Your task to perform on an android device: Go to CNN.com Image 0: 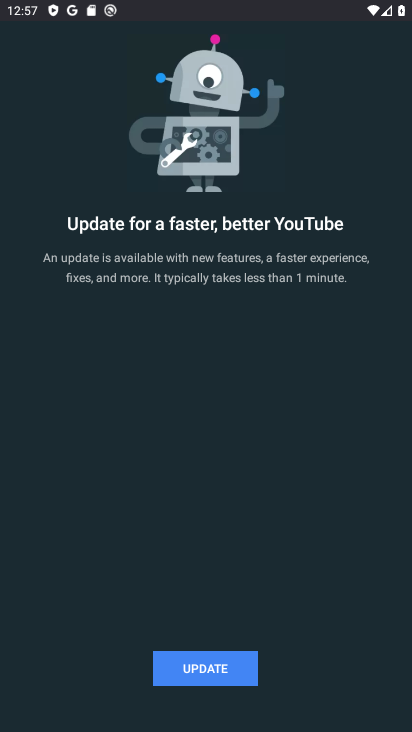
Step 0: press home button
Your task to perform on an android device: Go to CNN.com Image 1: 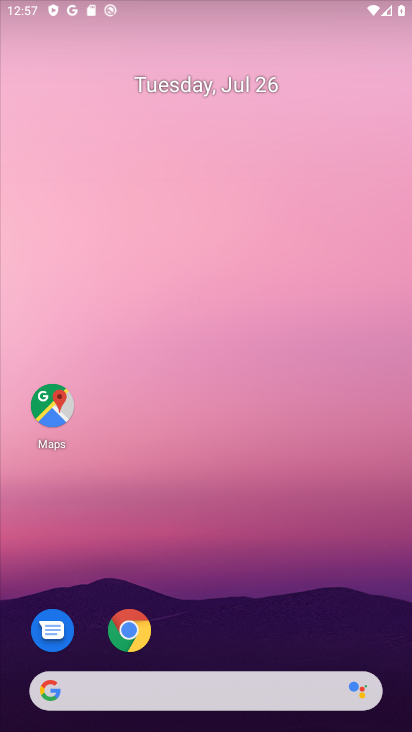
Step 1: drag from (397, 311) to (103, 459)
Your task to perform on an android device: Go to CNN.com Image 2: 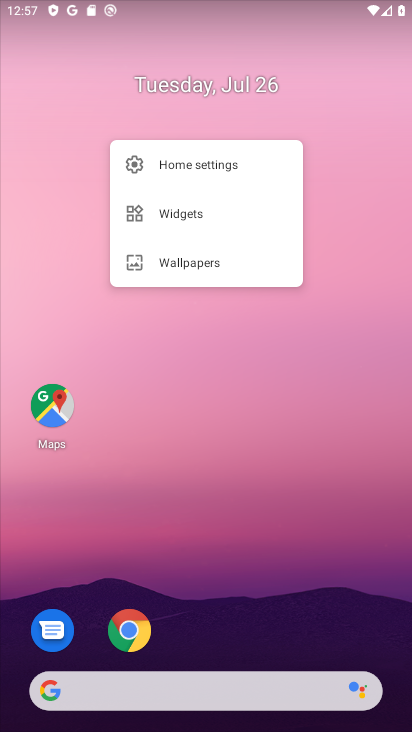
Step 2: drag from (195, 547) to (72, 1)
Your task to perform on an android device: Go to CNN.com Image 3: 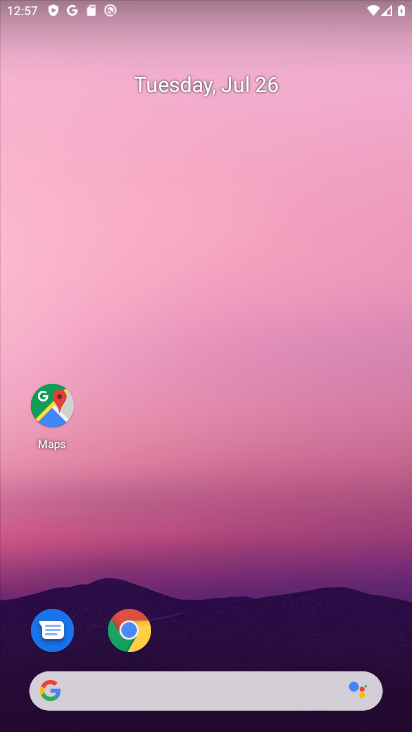
Step 3: drag from (221, 18) to (192, 0)
Your task to perform on an android device: Go to CNN.com Image 4: 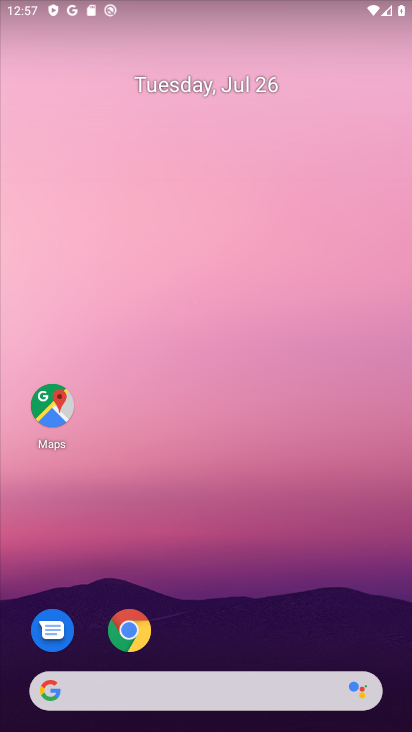
Step 4: drag from (352, 631) to (347, 157)
Your task to perform on an android device: Go to CNN.com Image 5: 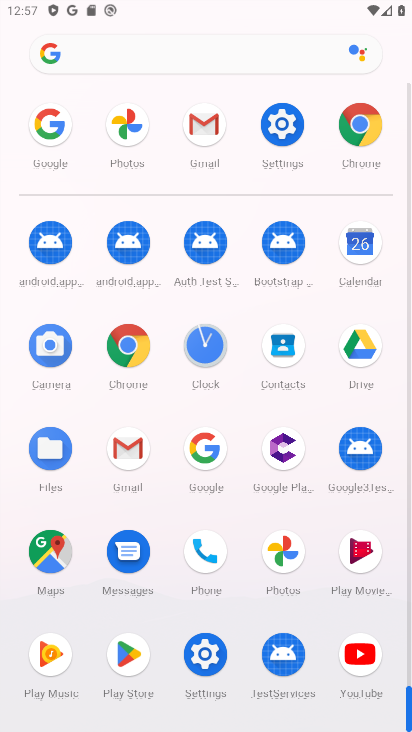
Step 5: click (366, 134)
Your task to perform on an android device: Go to CNN.com Image 6: 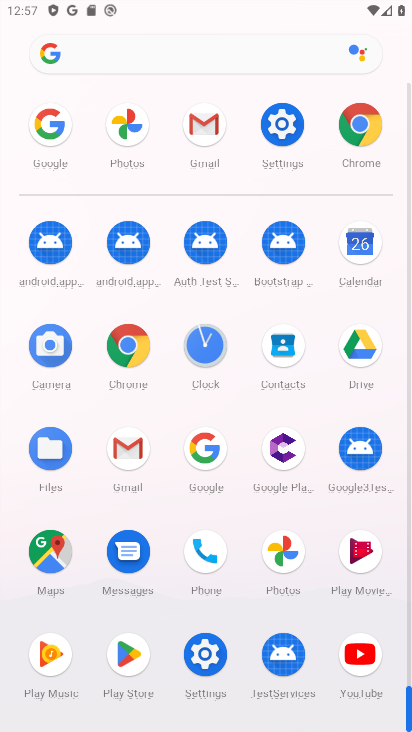
Step 6: click (361, 134)
Your task to perform on an android device: Go to CNN.com Image 7: 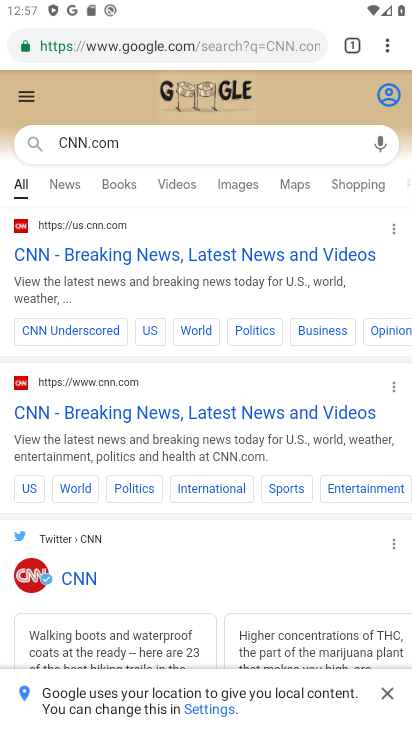
Step 7: task complete